Your task to perform on an android device: read, delete, or share a saved page in the chrome app Image 0: 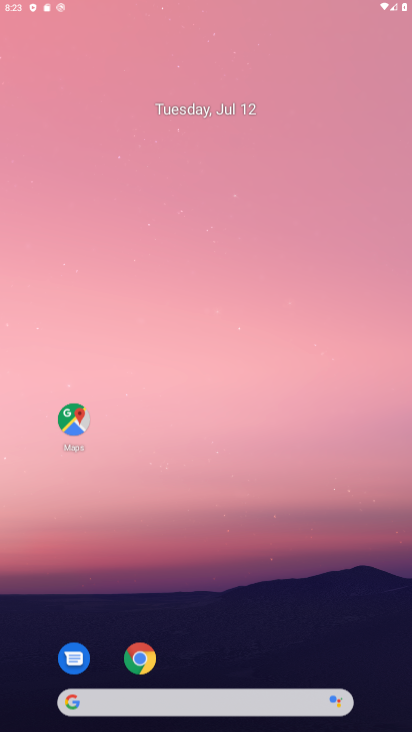
Step 0: click (218, 702)
Your task to perform on an android device: read, delete, or share a saved page in the chrome app Image 1: 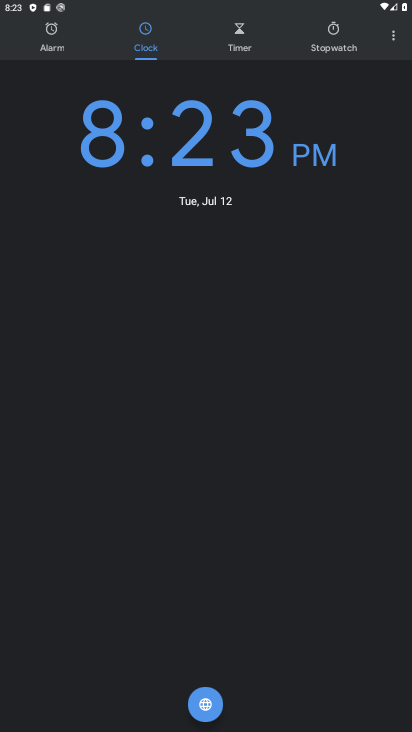
Step 1: press home button
Your task to perform on an android device: read, delete, or share a saved page in the chrome app Image 2: 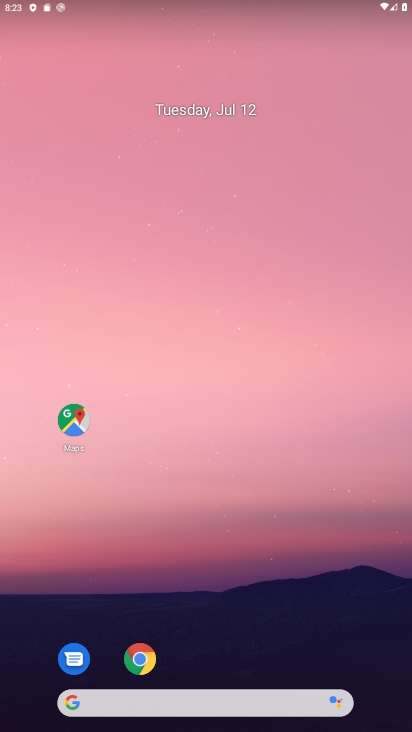
Step 2: click (129, 664)
Your task to perform on an android device: read, delete, or share a saved page in the chrome app Image 3: 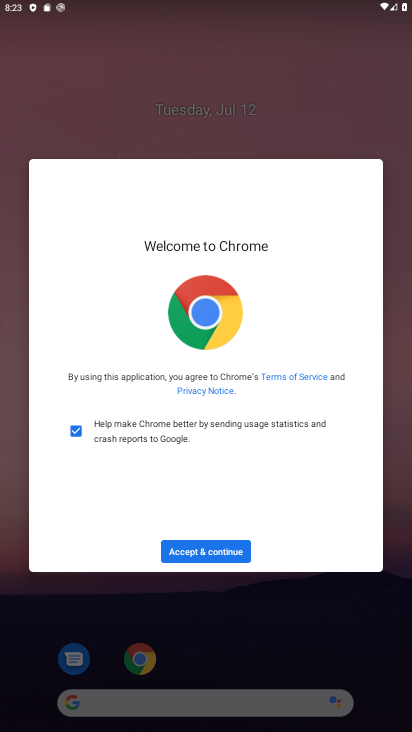
Step 3: click (222, 557)
Your task to perform on an android device: read, delete, or share a saved page in the chrome app Image 4: 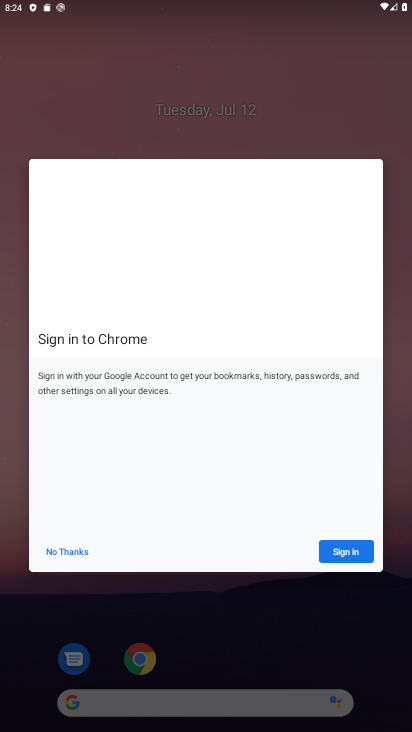
Step 4: click (341, 557)
Your task to perform on an android device: read, delete, or share a saved page in the chrome app Image 5: 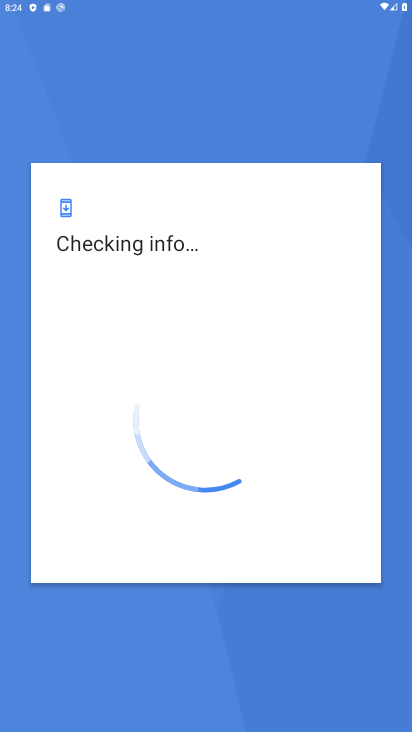
Step 5: task complete